Your task to perform on an android device: change the clock display to digital Image 0: 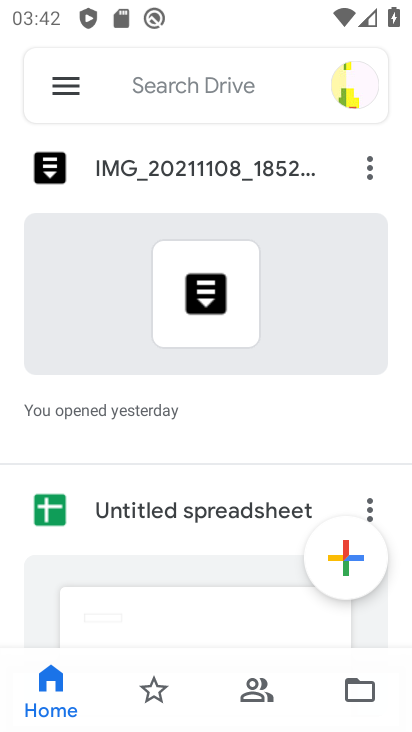
Step 0: press home button
Your task to perform on an android device: change the clock display to digital Image 1: 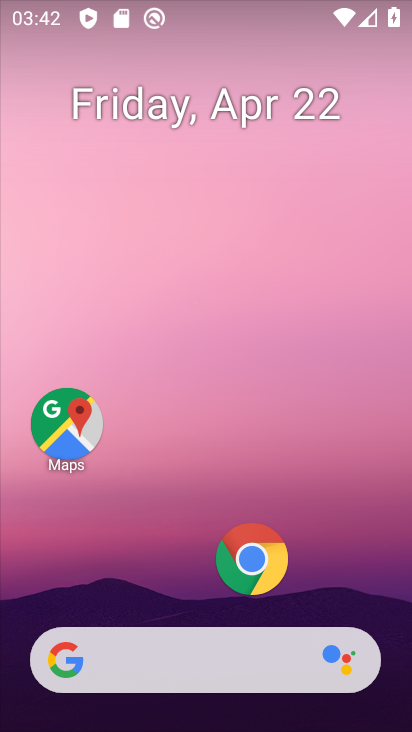
Step 1: drag from (177, 559) to (276, 125)
Your task to perform on an android device: change the clock display to digital Image 2: 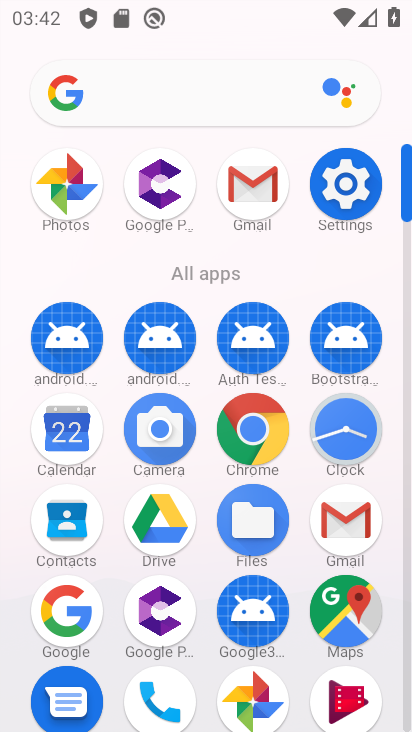
Step 2: click (339, 432)
Your task to perform on an android device: change the clock display to digital Image 3: 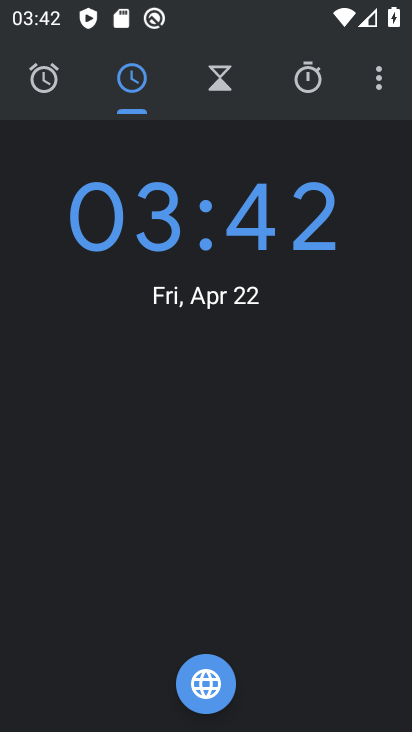
Step 3: click (374, 74)
Your task to perform on an android device: change the clock display to digital Image 4: 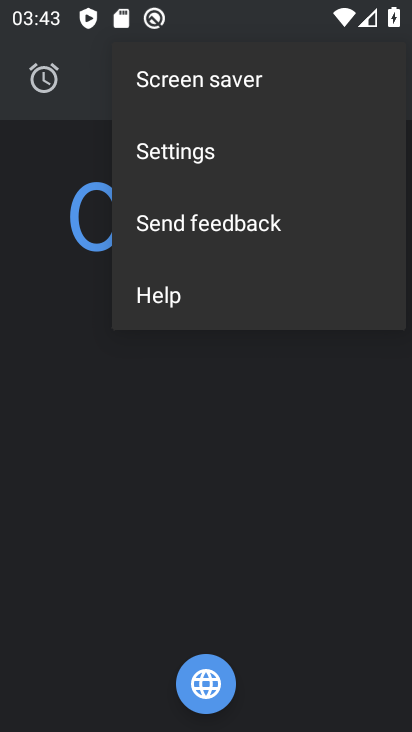
Step 4: click (188, 162)
Your task to perform on an android device: change the clock display to digital Image 5: 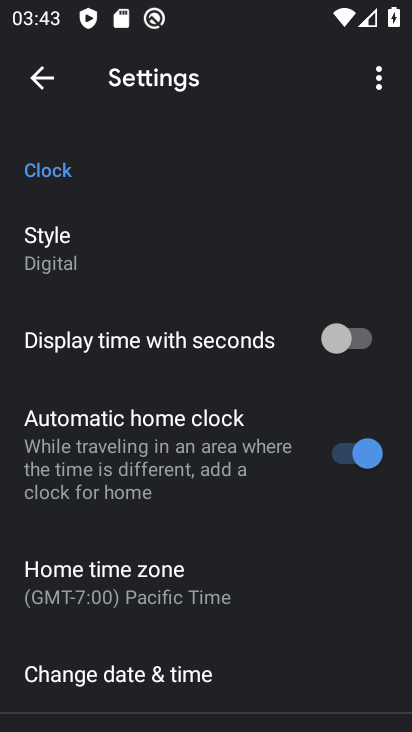
Step 5: click (98, 256)
Your task to perform on an android device: change the clock display to digital Image 6: 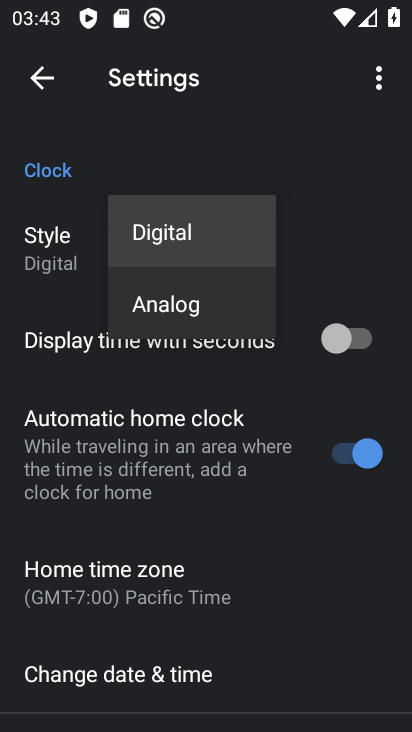
Step 6: task complete